Your task to perform on an android device: toggle javascript in the chrome app Image 0: 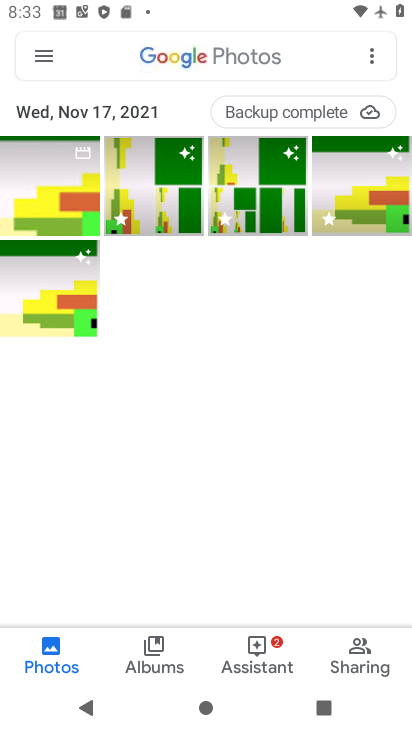
Step 0: press home button
Your task to perform on an android device: toggle javascript in the chrome app Image 1: 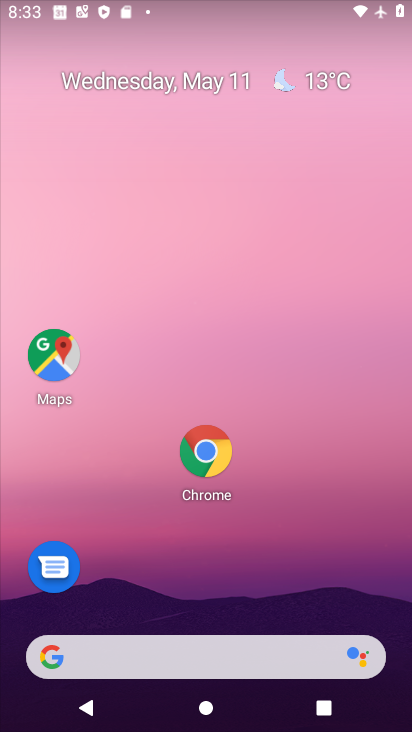
Step 1: click (223, 454)
Your task to perform on an android device: toggle javascript in the chrome app Image 2: 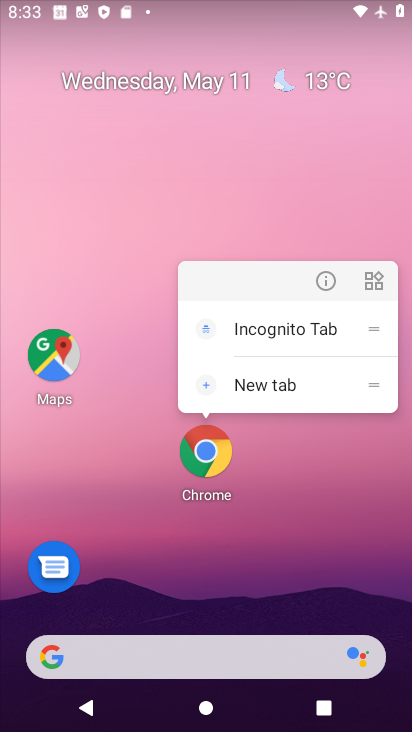
Step 2: click (213, 461)
Your task to perform on an android device: toggle javascript in the chrome app Image 3: 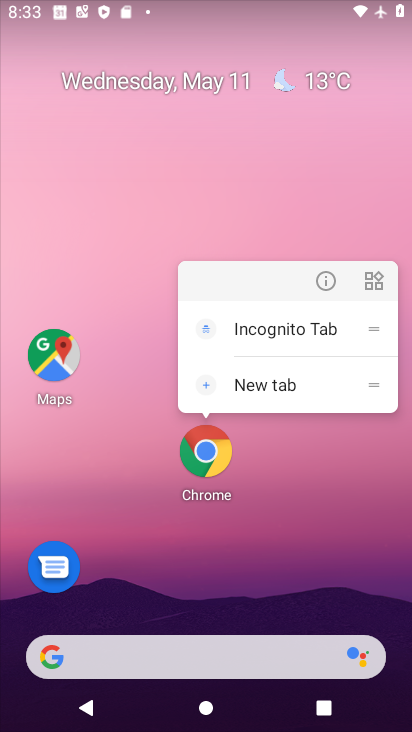
Step 3: click (207, 447)
Your task to perform on an android device: toggle javascript in the chrome app Image 4: 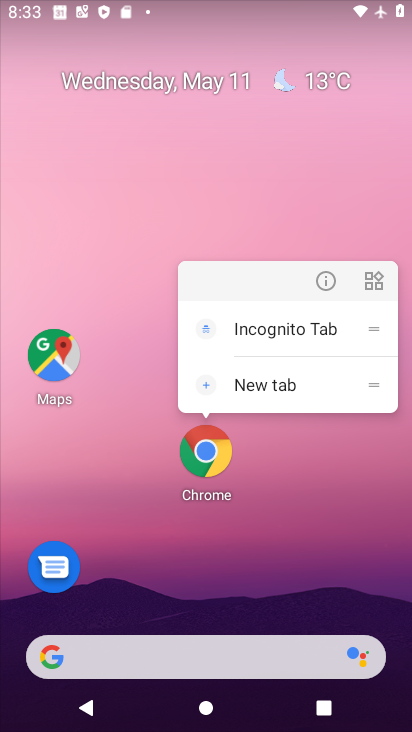
Step 4: click (199, 455)
Your task to perform on an android device: toggle javascript in the chrome app Image 5: 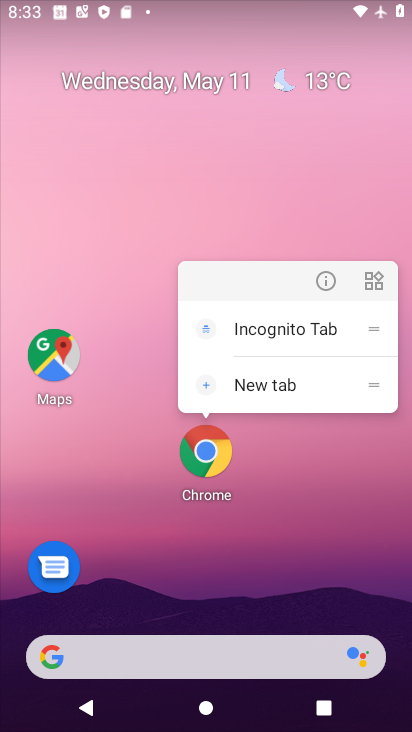
Step 5: drag from (150, 656) to (291, 148)
Your task to perform on an android device: toggle javascript in the chrome app Image 6: 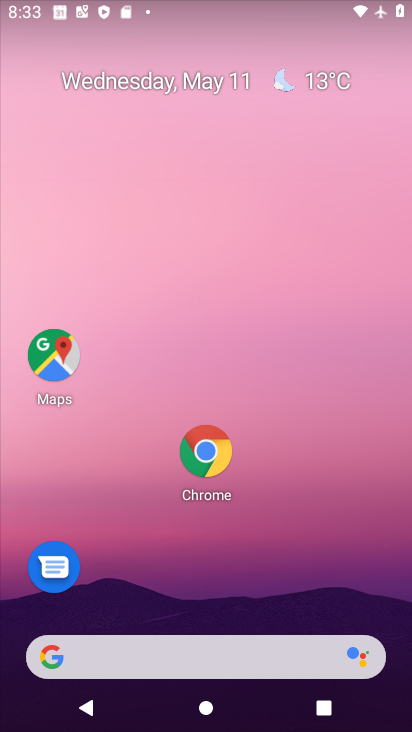
Step 6: drag from (210, 644) to (361, 155)
Your task to perform on an android device: toggle javascript in the chrome app Image 7: 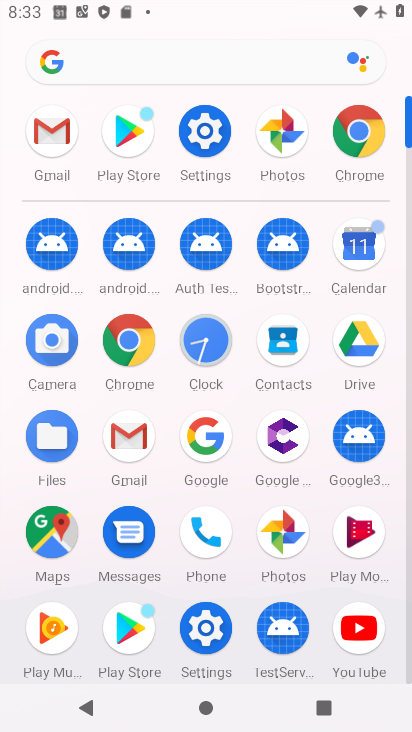
Step 7: click (361, 139)
Your task to perform on an android device: toggle javascript in the chrome app Image 8: 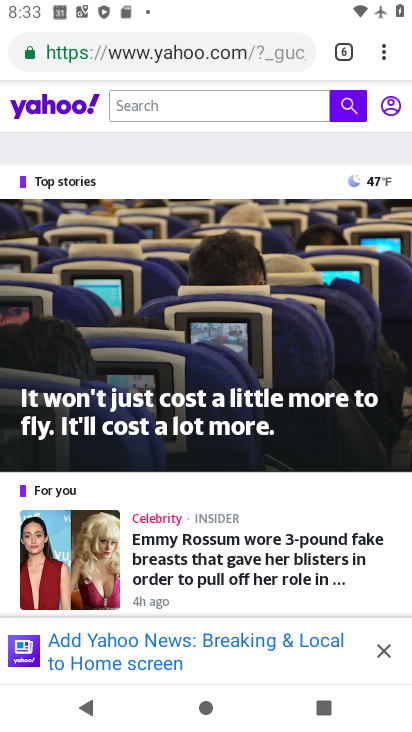
Step 8: drag from (384, 52) to (242, 607)
Your task to perform on an android device: toggle javascript in the chrome app Image 9: 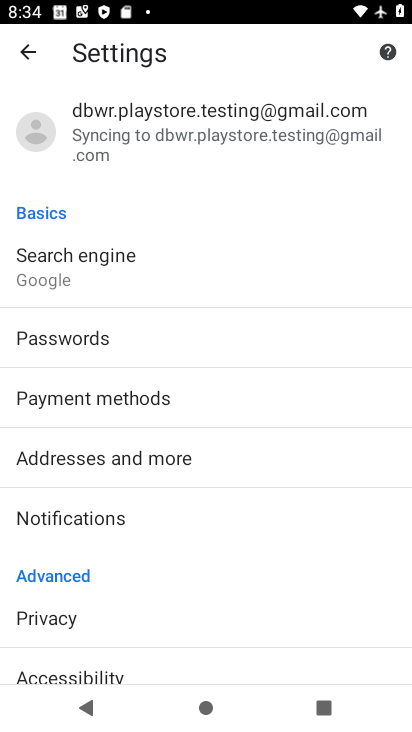
Step 9: drag from (161, 587) to (324, 322)
Your task to perform on an android device: toggle javascript in the chrome app Image 10: 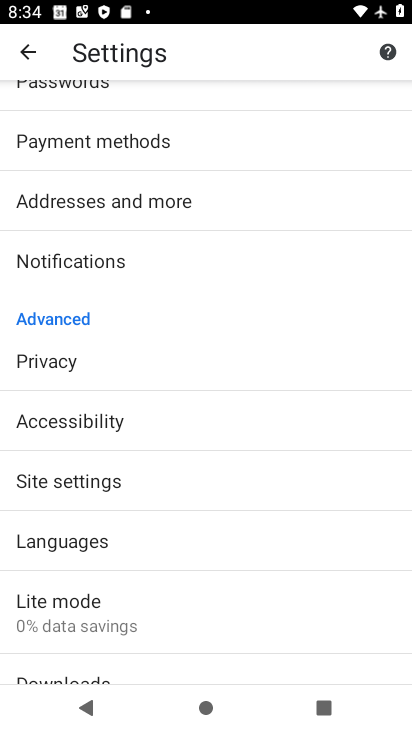
Step 10: click (94, 476)
Your task to perform on an android device: toggle javascript in the chrome app Image 11: 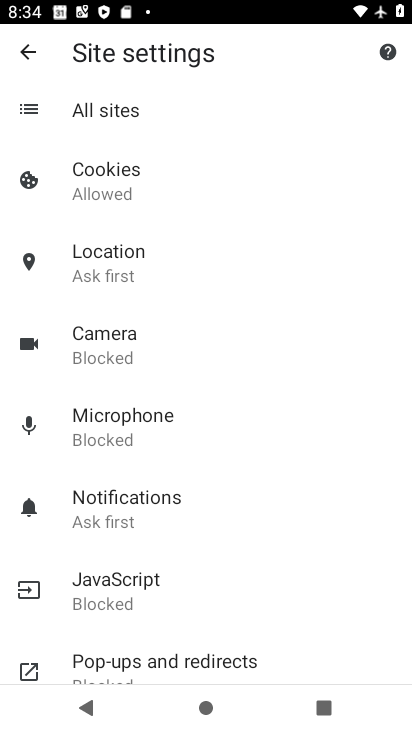
Step 11: click (143, 585)
Your task to perform on an android device: toggle javascript in the chrome app Image 12: 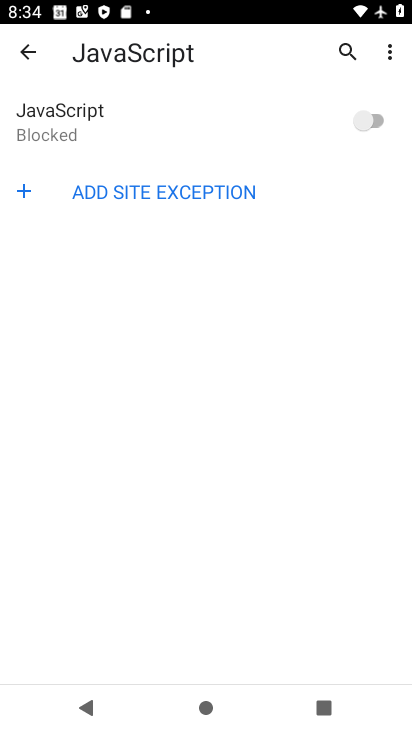
Step 12: click (373, 122)
Your task to perform on an android device: toggle javascript in the chrome app Image 13: 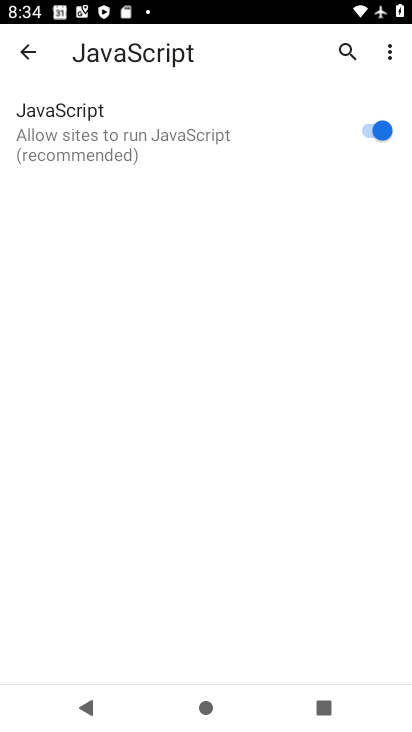
Step 13: task complete